Your task to perform on an android device: When is my next appointment? Image 0: 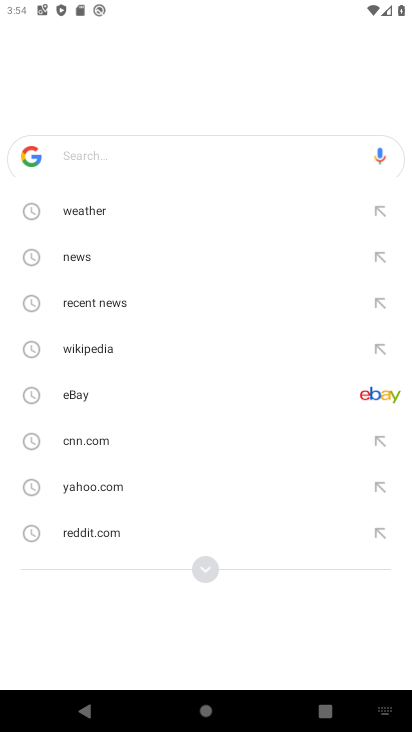
Step 0: press home button
Your task to perform on an android device: When is my next appointment? Image 1: 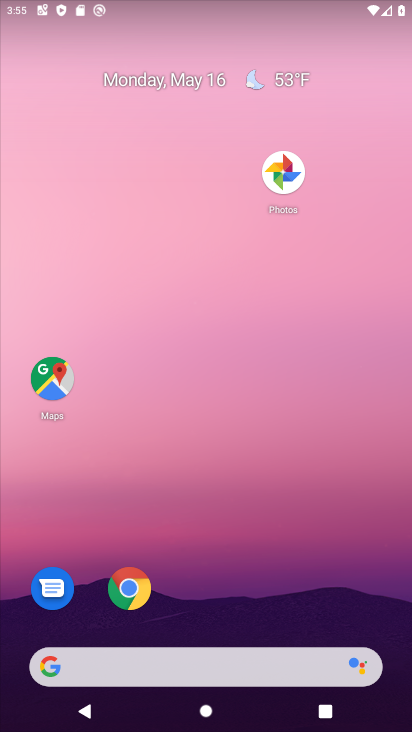
Step 1: click (197, 81)
Your task to perform on an android device: When is my next appointment? Image 2: 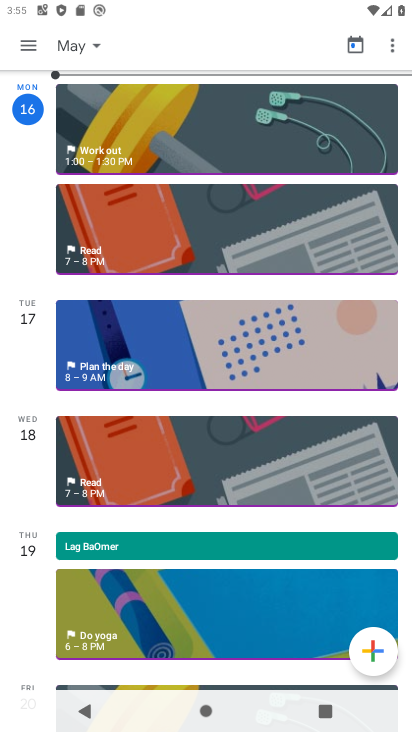
Step 2: task complete